Your task to perform on an android device: Go to Yahoo.com Image 0: 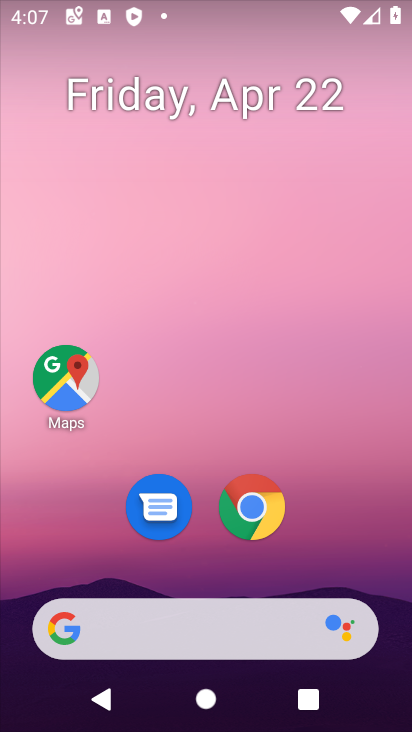
Step 0: click (249, 504)
Your task to perform on an android device: Go to Yahoo.com Image 1: 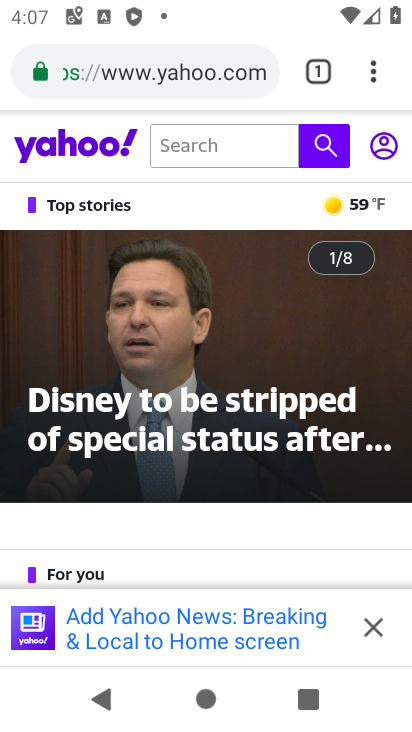
Step 1: task complete